Your task to perform on an android device: turn off airplane mode Image 0: 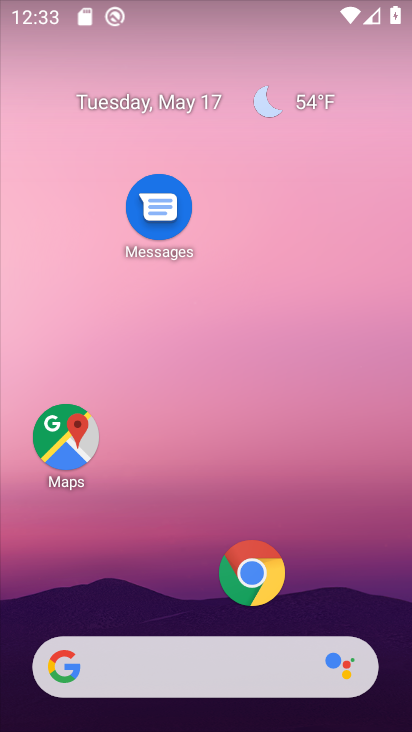
Step 0: drag from (200, 605) to (219, 84)
Your task to perform on an android device: turn off airplane mode Image 1: 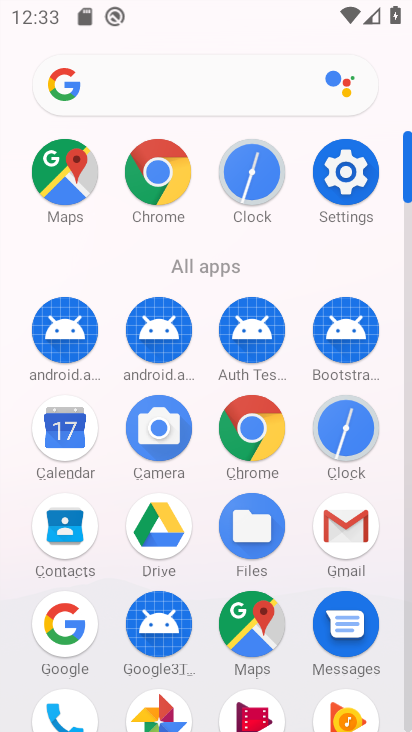
Step 1: task complete